Your task to perform on an android device: View the shopping cart on costco.com. Search for macbook pro 15 inch on costco.com, select the first entry, add it to the cart, then select checkout. Image 0: 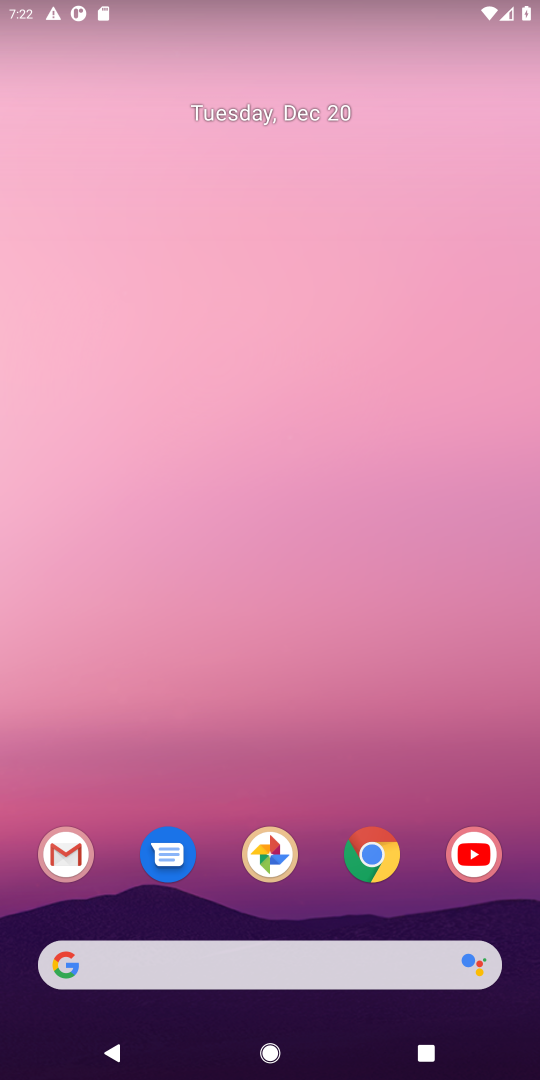
Step 0: click (366, 857)
Your task to perform on an android device: View the shopping cart on costco.com. Search for macbook pro 15 inch on costco.com, select the first entry, add it to the cart, then select checkout. Image 1: 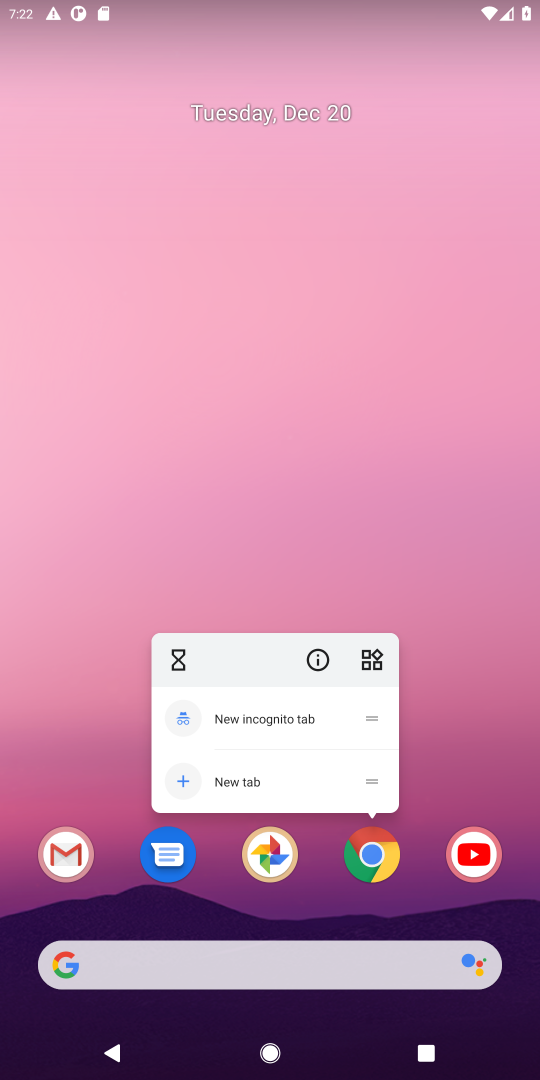
Step 1: click (366, 857)
Your task to perform on an android device: View the shopping cart on costco.com. Search for macbook pro 15 inch on costco.com, select the first entry, add it to the cart, then select checkout. Image 2: 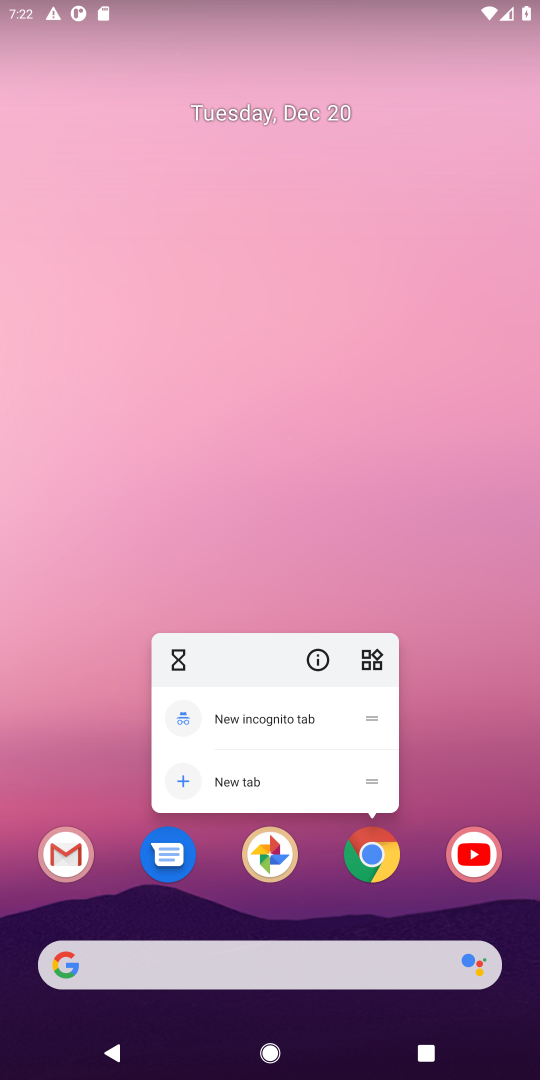
Step 2: click (366, 857)
Your task to perform on an android device: View the shopping cart on costco.com. Search for macbook pro 15 inch on costco.com, select the first entry, add it to the cart, then select checkout. Image 3: 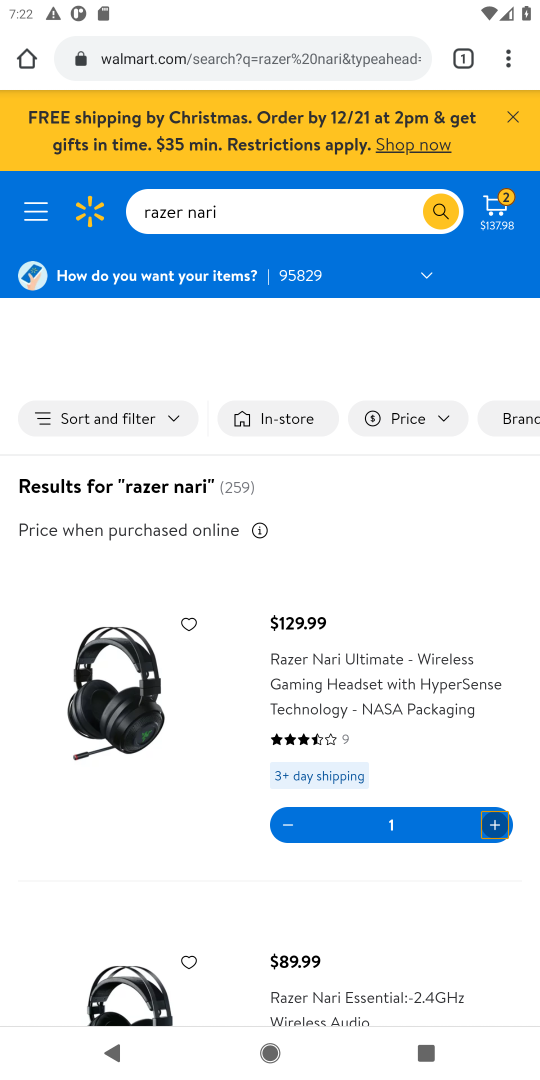
Step 3: click (188, 64)
Your task to perform on an android device: View the shopping cart on costco.com. Search for macbook pro 15 inch on costco.com, select the first entry, add it to the cart, then select checkout. Image 4: 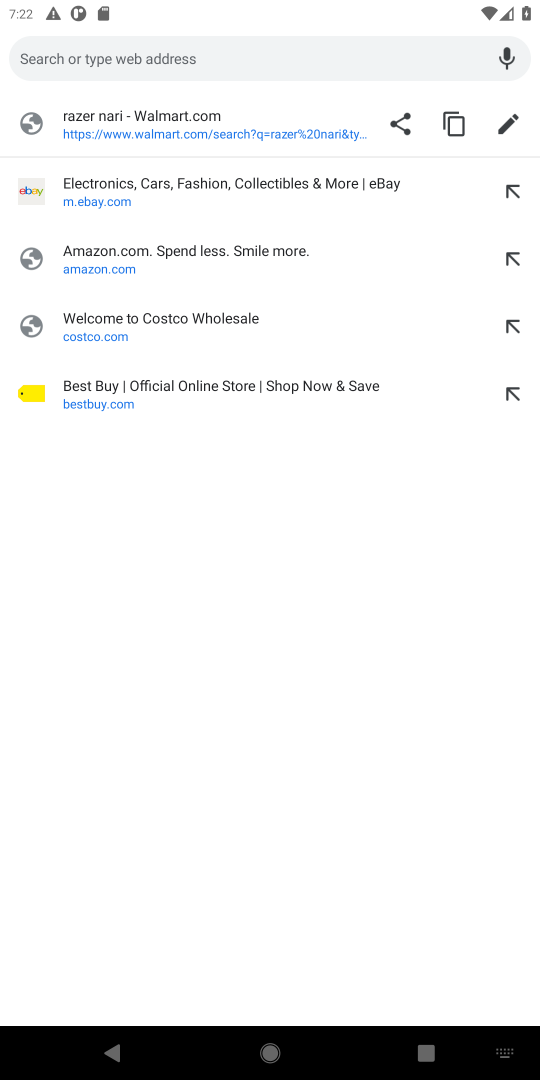
Step 4: click (98, 322)
Your task to perform on an android device: View the shopping cart on costco.com. Search for macbook pro 15 inch on costco.com, select the first entry, add it to the cart, then select checkout. Image 5: 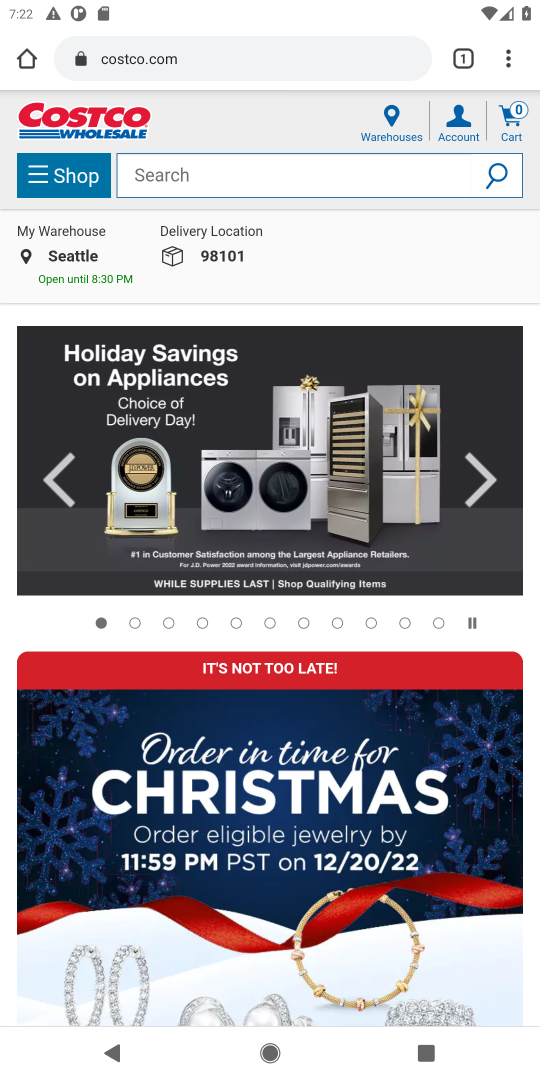
Step 5: click (507, 126)
Your task to perform on an android device: View the shopping cart on costco.com. Search for macbook pro 15 inch on costco.com, select the first entry, add it to the cart, then select checkout. Image 6: 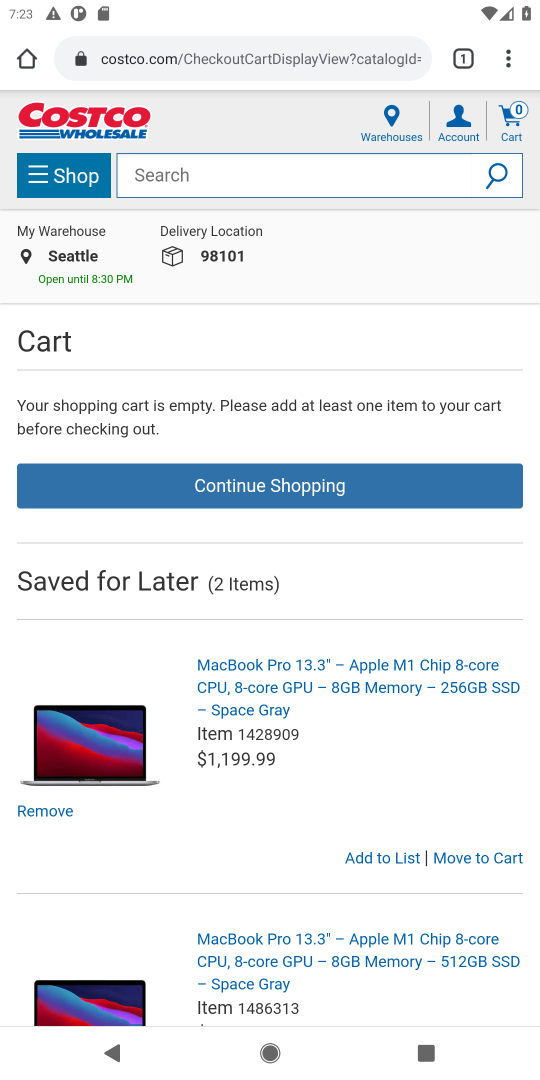
Step 6: click (202, 192)
Your task to perform on an android device: View the shopping cart on costco.com. Search for macbook pro 15 inch on costco.com, select the first entry, add it to the cart, then select checkout. Image 7: 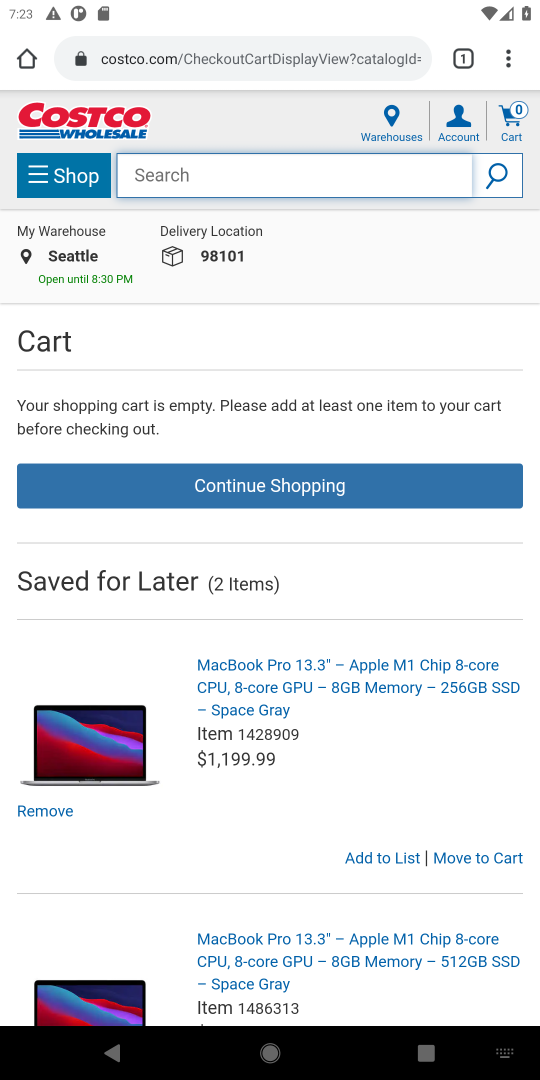
Step 7: type "macbook pro 15 inch"
Your task to perform on an android device: View the shopping cart on costco.com. Search for macbook pro 15 inch on costco.com, select the first entry, add it to the cart, then select checkout. Image 8: 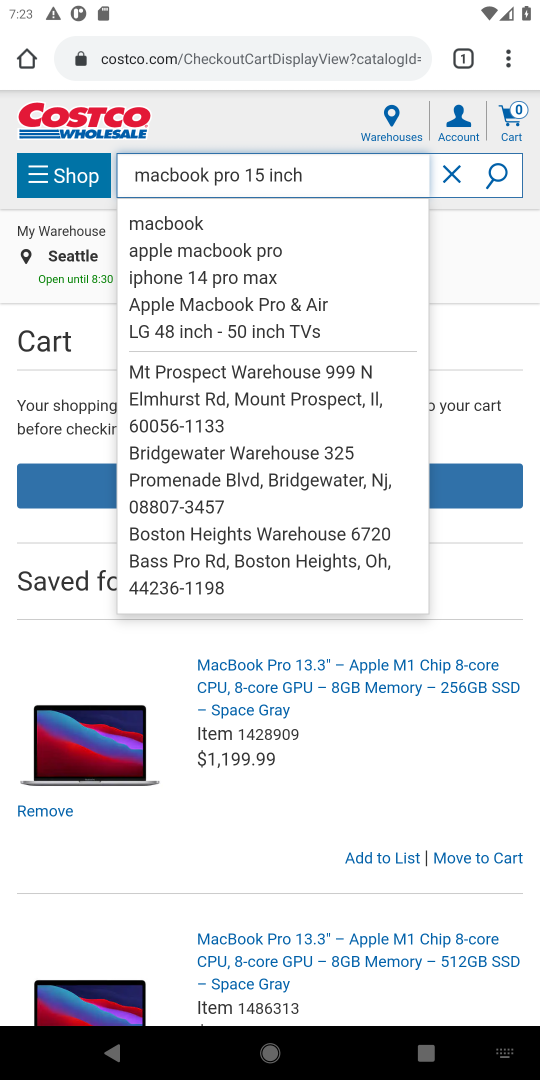
Step 8: click (493, 174)
Your task to perform on an android device: View the shopping cart on costco.com. Search for macbook pro 15 inch on costco.com, select the first entry, add it to the cart, then select checkout. Image 9: 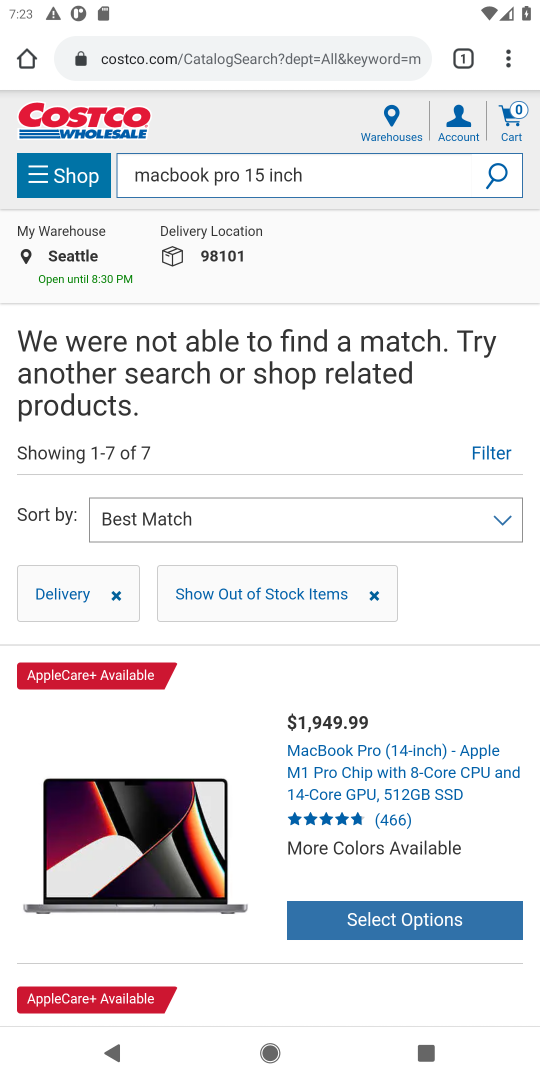
Step 9: task complete